Your task to perform on an android device: Open eBay Image 0: 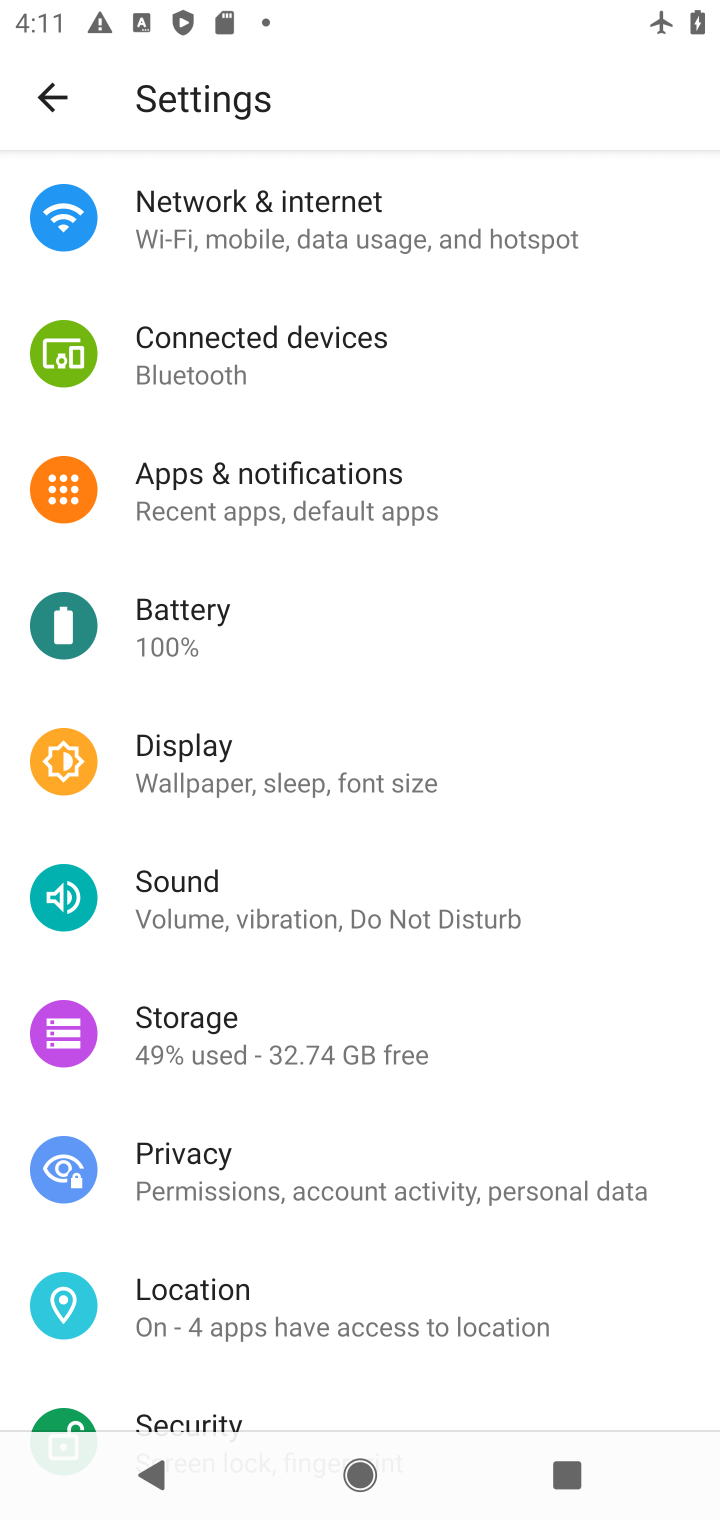
Step 0: press home button
Your task to perform on an android device: Open eBay Image 1: 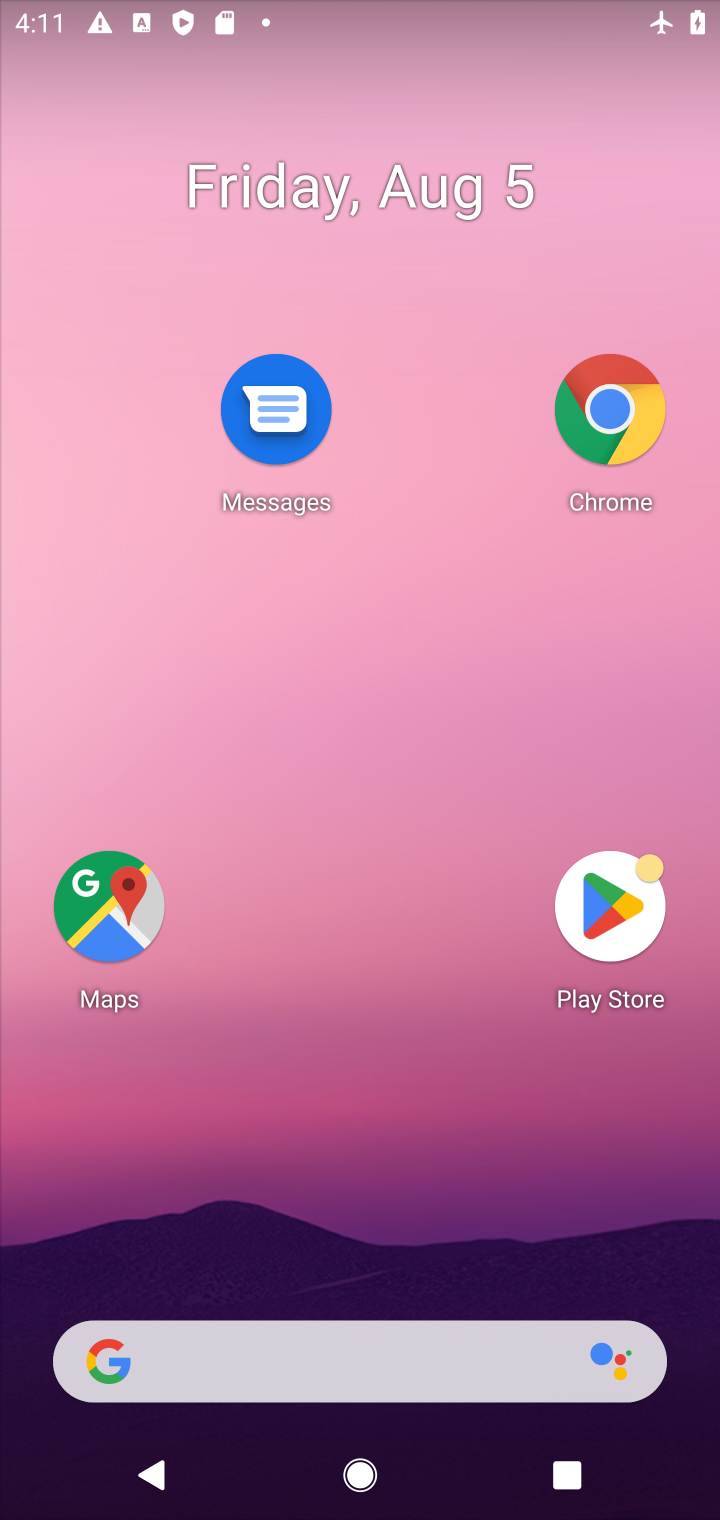
Step 1: click (591, 441)
Your task to perform on an android device: Open eBay Image 2: 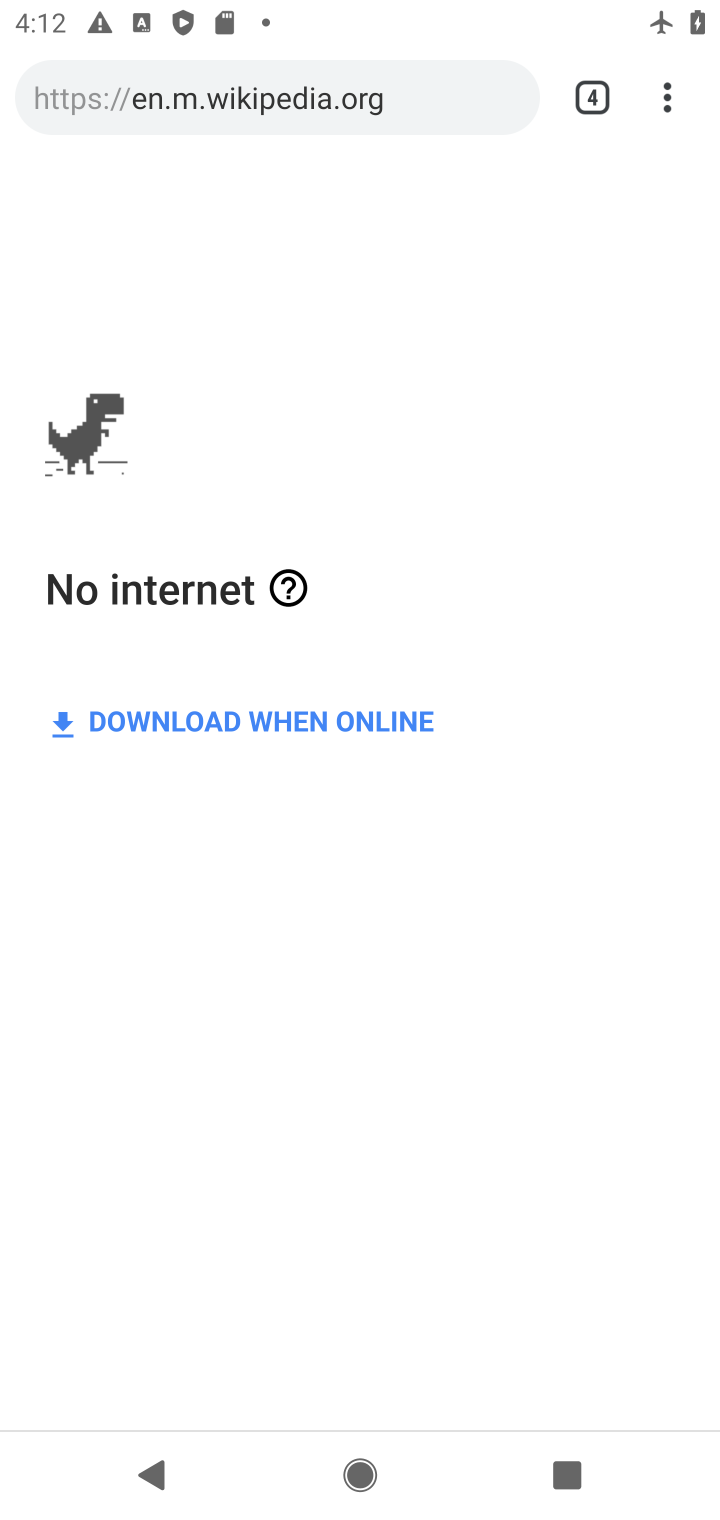
Step 2: click (607, 100)
Your task to perform on an android device: Open eBay Image 3: 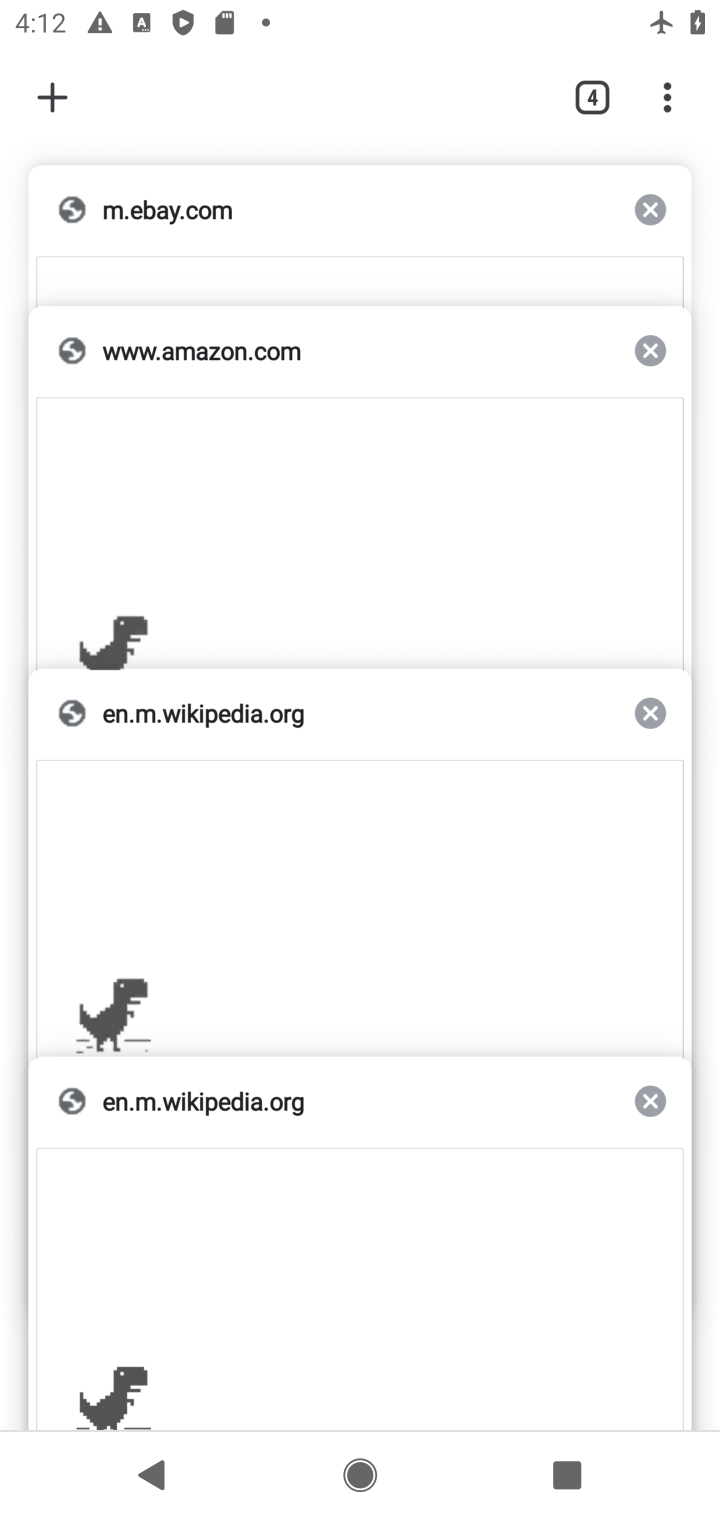
Step 3: click (50, 91)
Your task to perform on an android device: Open eBay Image 4: 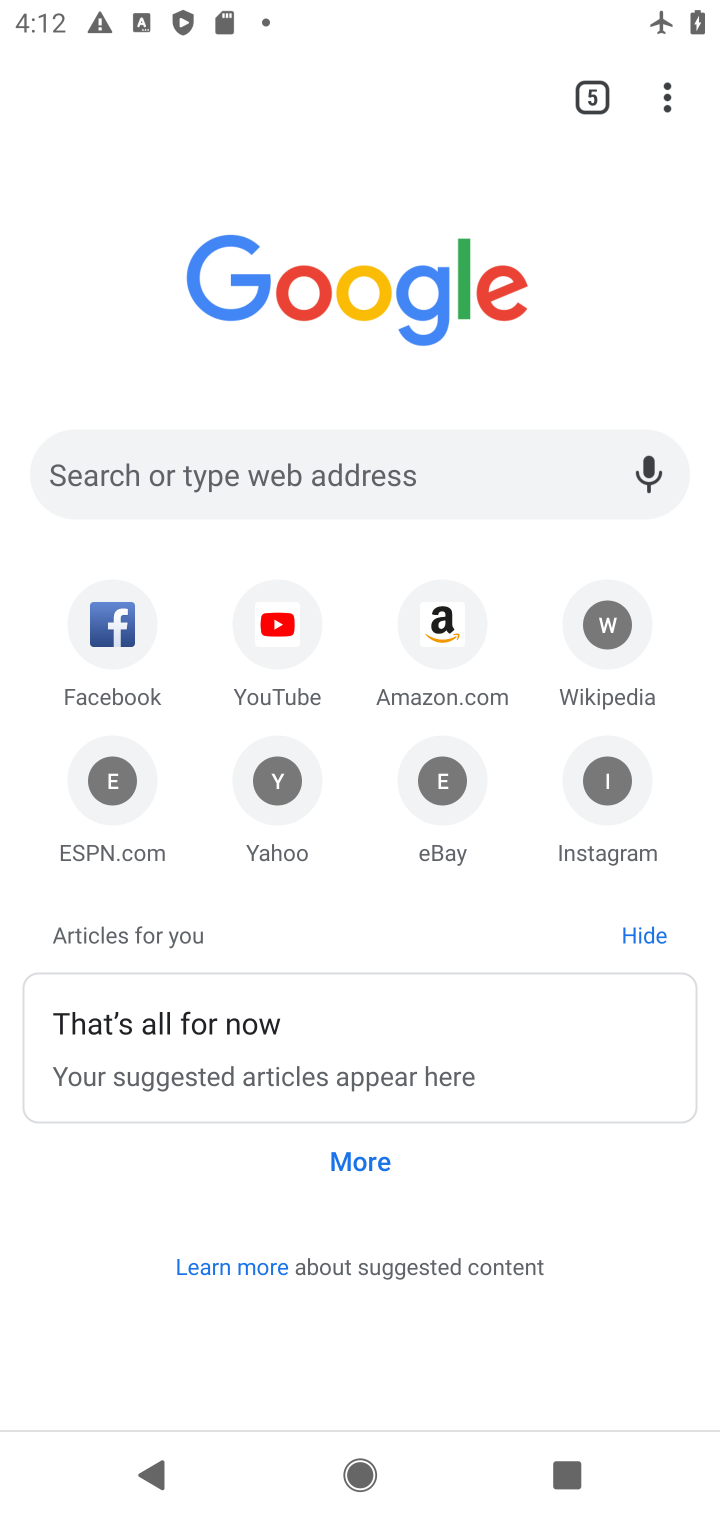
Step 4: click (426, 818)
Your task to perform on an android device: Open eBay Image 5: 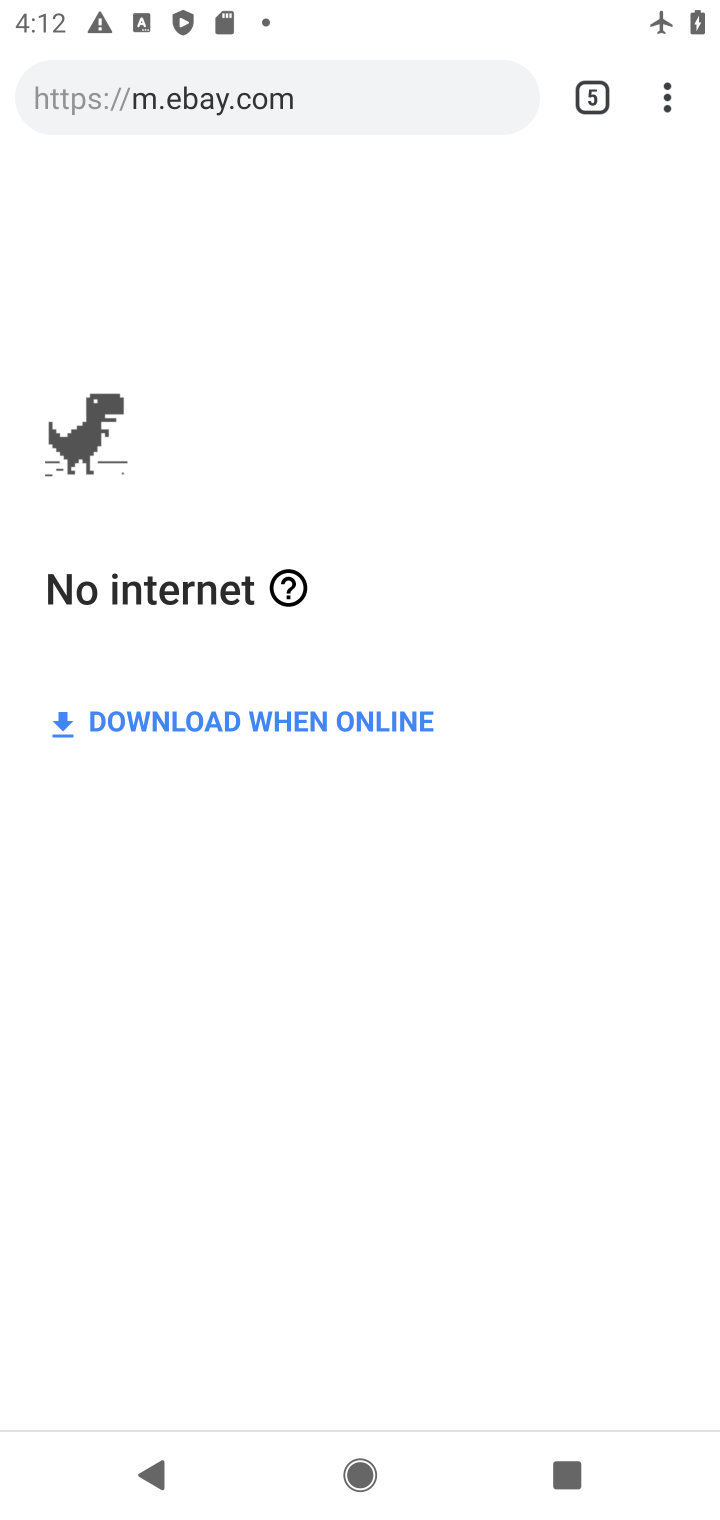
Step 5: task complete